Your task to perform on an android device: delete location history Image 0: 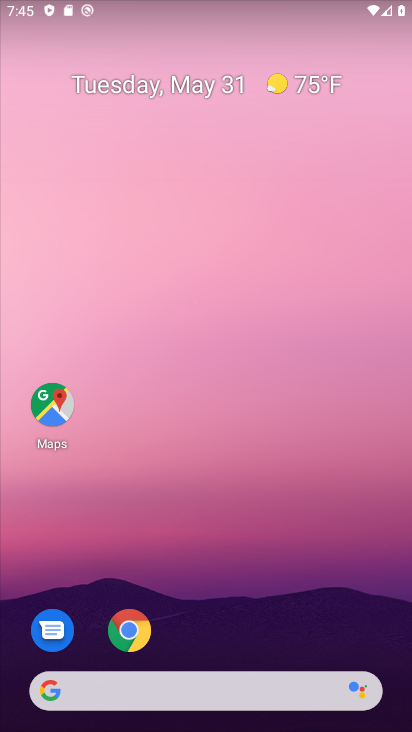
Step 0: drag from (231, 605) to (265, 154)
Your task to perform on an android device: delete location history Image 1: 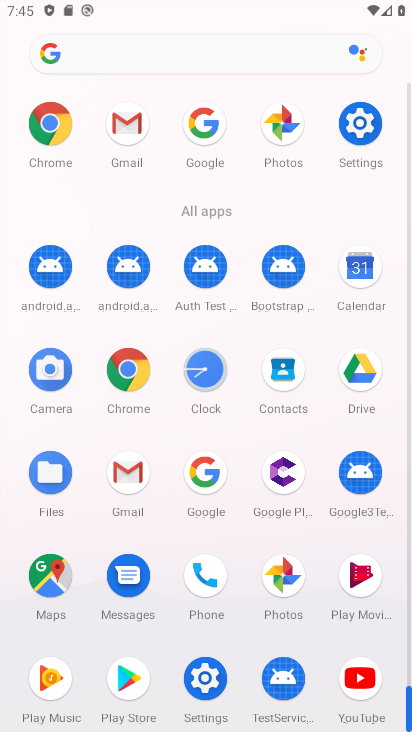
Step 1: click (365, 137)
Your task to perform on an android device: delete location history Image 2: 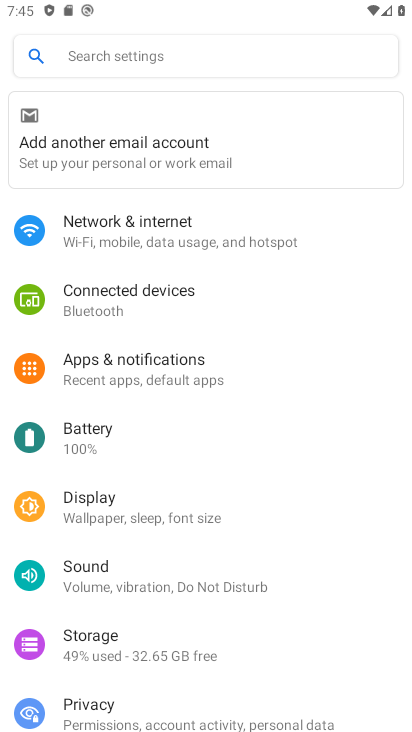
Step 2: drag from (170, 614) to (201, 395)
Your task to perform on an android device: delete location history Image 3: 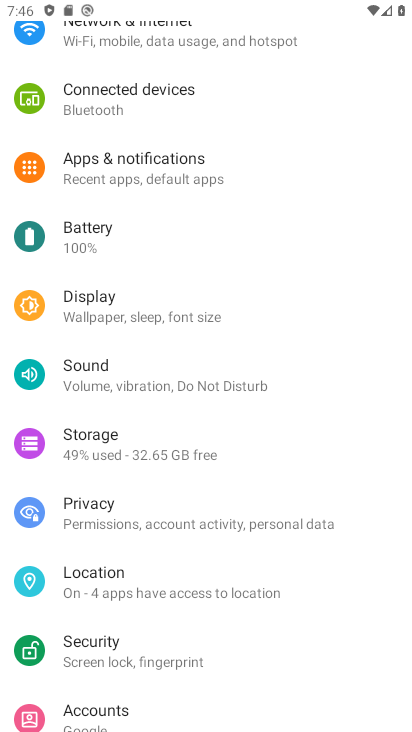
Step 3: click (105, 585)
Your task to perform on an android device: delete location history Image 4: 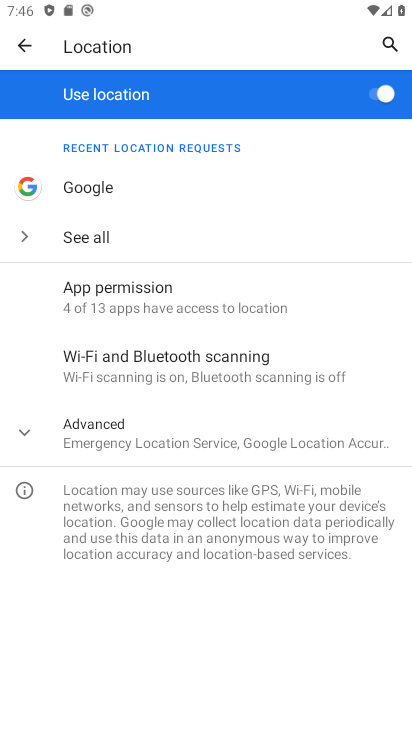
Step 4: click (116, 427)
Your task to perform on an android device: delete location history Image 5: 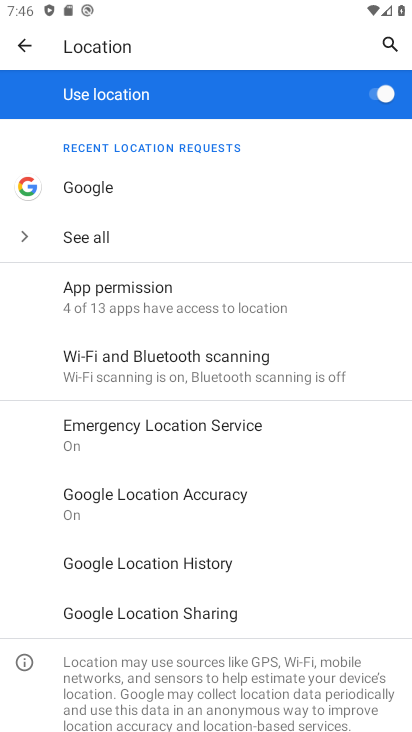
Step 5: click (162, 565)
Your task to perform on an android device: delete location history Image 6: 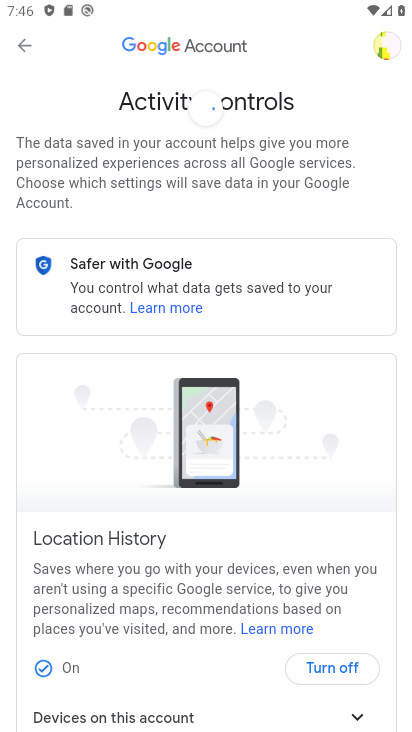
Step 6: drag from (214, 577) to (291, 239)
Your task to perform on an android device: delete location history Image 7: 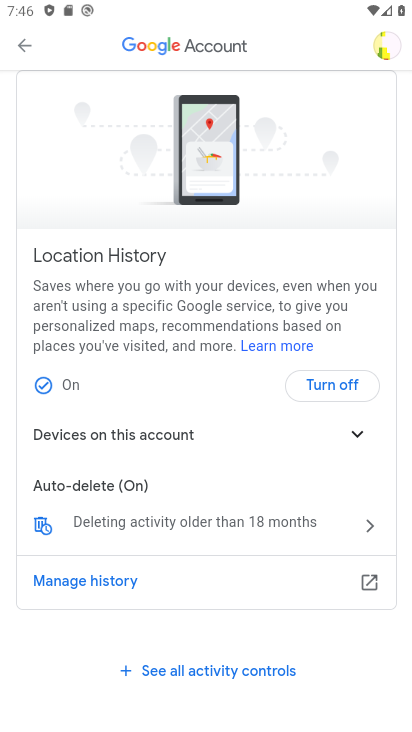
Step 7: click (206, 511)
Your task to perform on an android device: delete location history Image 8: 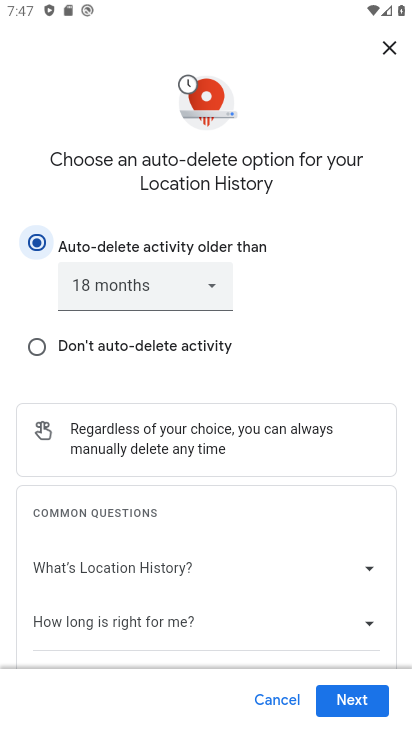
Step 8: click (350, 710)
Your task to perform on an android device: delete location history Image 9: 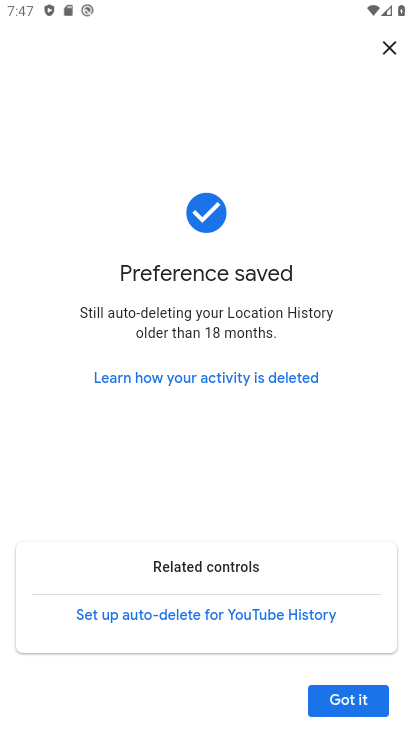
Step 9: click (358, 694)
Your task to perform on an android device: delete location history Image 10: 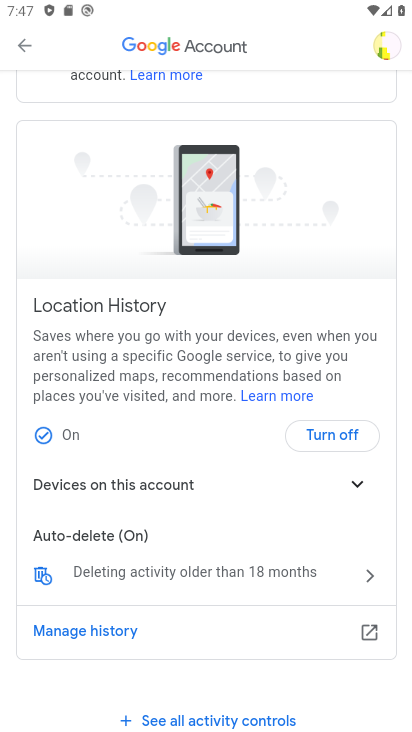
Step 10: task complete